Your task to perform on an android device: Go to Reddit.com Image 0: 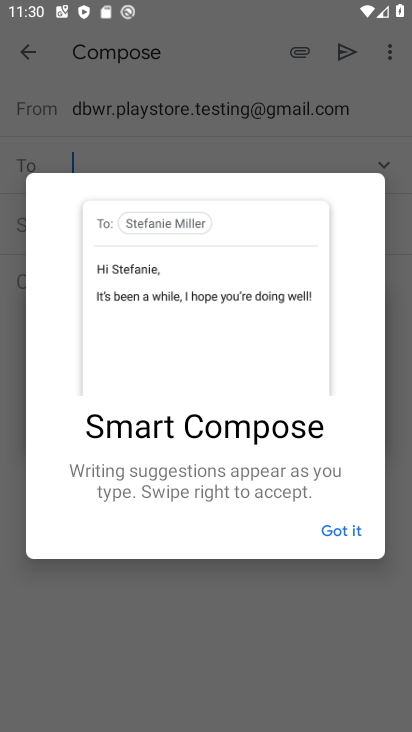
Step 0: press home button
Your task to perform on an android device: Go to Reddit.com Image 1: 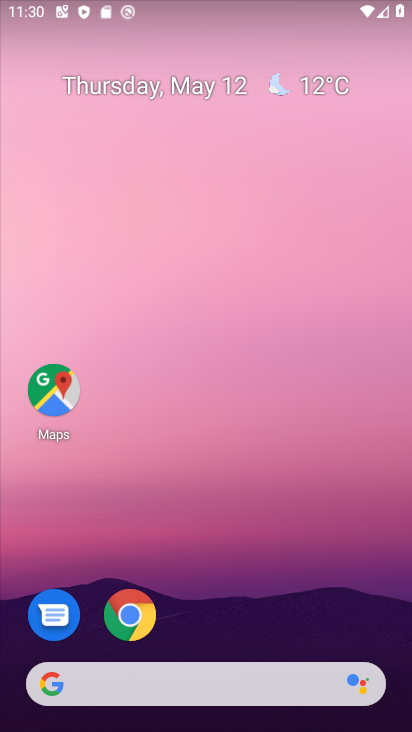
Step 1: click (116, 604)
Your task to perform on an android device: Go to Reddit.com Image 2: 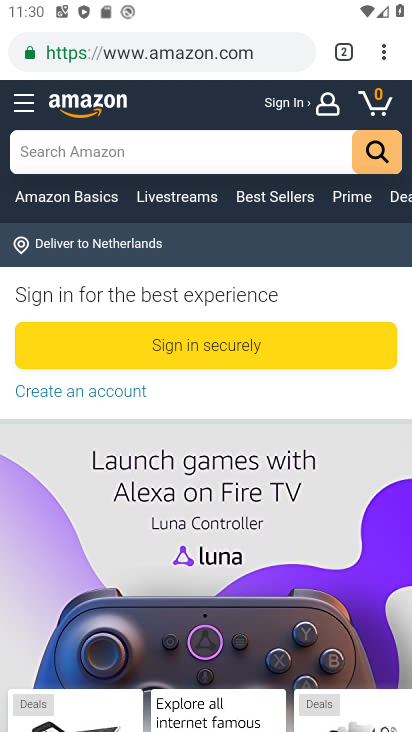
Step 2: click (333, 56)
Your task to perform on an android device: Go to Reddit.com Image 3: 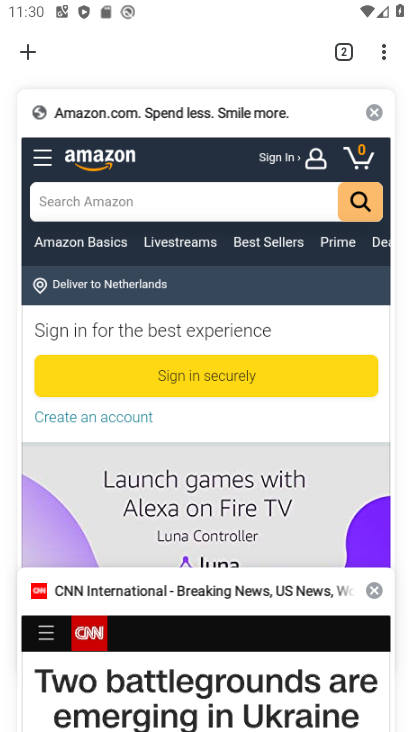
Step 3: click (23, 47)
Your task to perform on an android device: Go to Reddit.com Image 4: 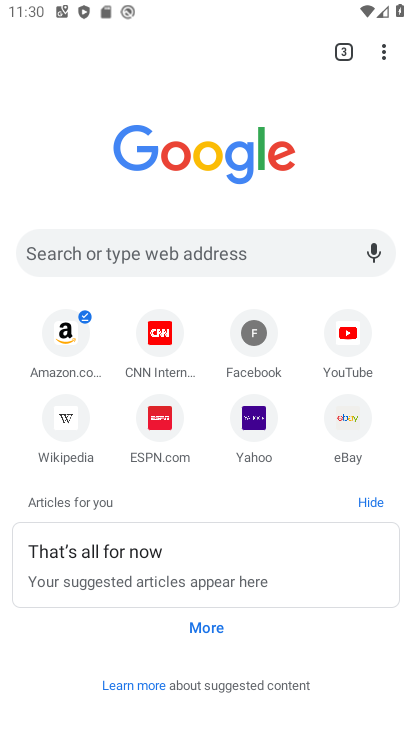
Step 4: click (173, 245)
Your task to perform on an android device: Go to Reddit.com Image 5: 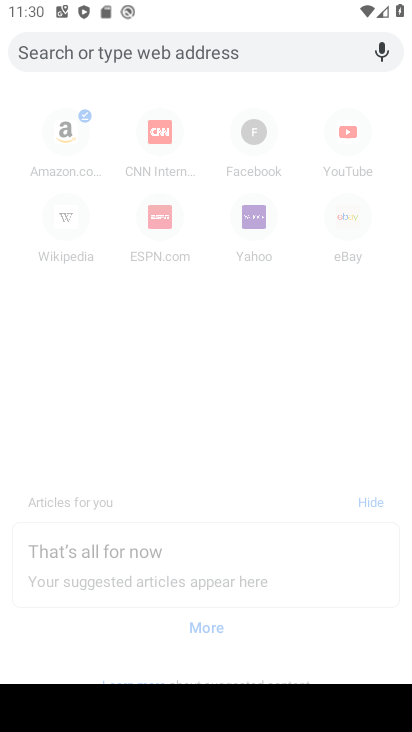
Step 5: type "Reddit.com"
Your task to perform on an android device: Go to Reddit.com Image 6: 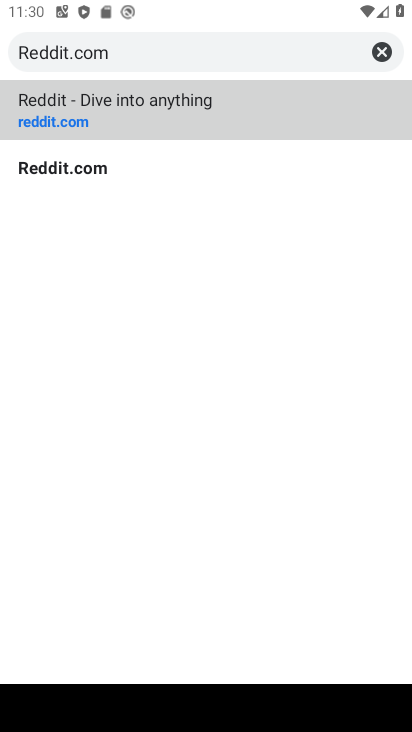
Step 6: click (211, 121)
Your task to perform on an android device: Go to Reddit.com Image 7: 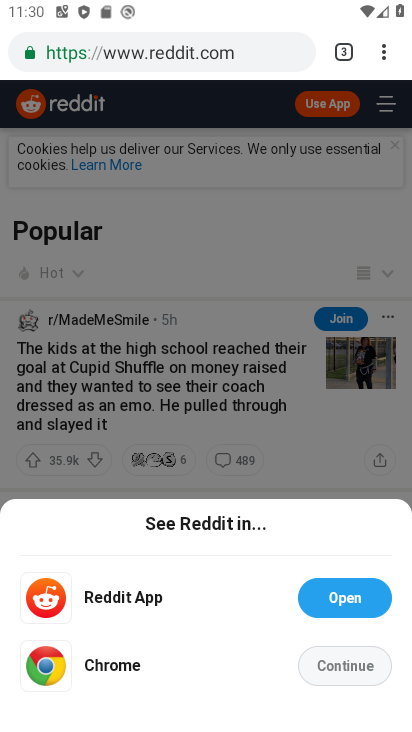
Step 7: click (353, 672)
Your task to perform on an android device: Go to Reddit.com Image 8: 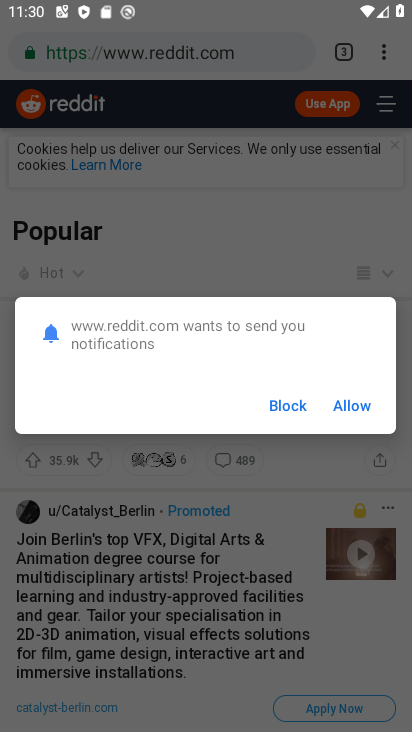
Step 8: task complete